Your task to perform on an android device: turn on translation in the chrome app Image 0: 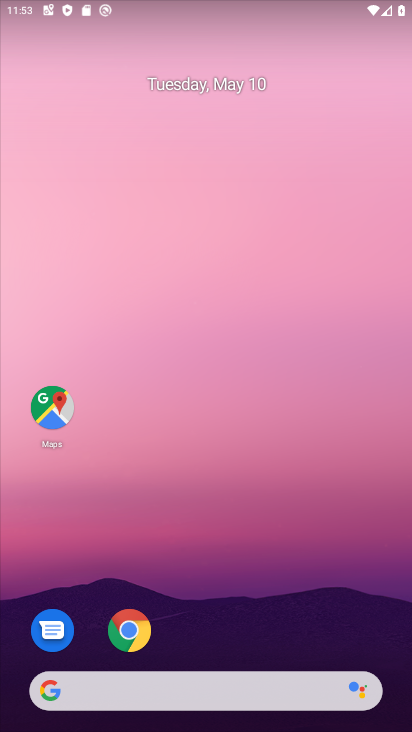
Step 0: click (127, 632)
Your task to perform on an android device: turn on translation in the chrome app Image 1: 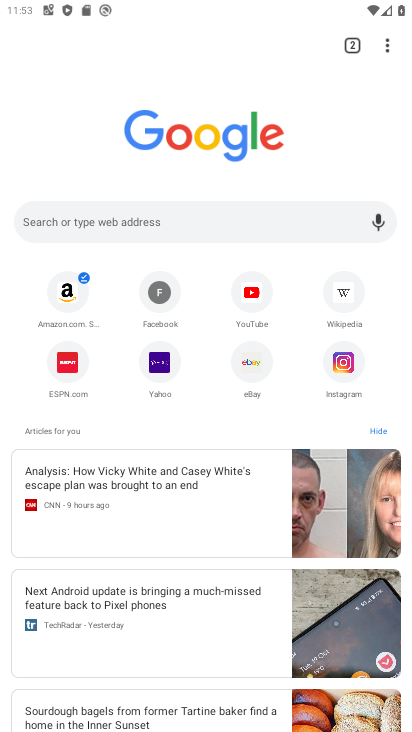
Step 1: drag from (388, 38) to (220, 394)
Your task to perform on an android device: turn on translation in the chrome app Image 2: 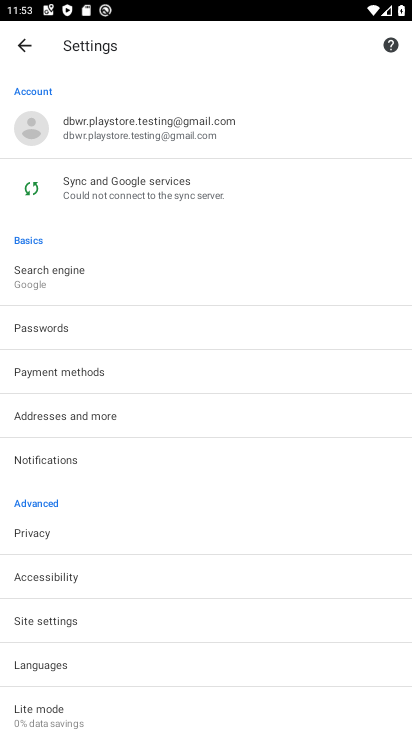
Step 2: drag from (267, 656) to (258, 133)
Your task to perform on an android device: turn on translation in the chrome app Image 3: 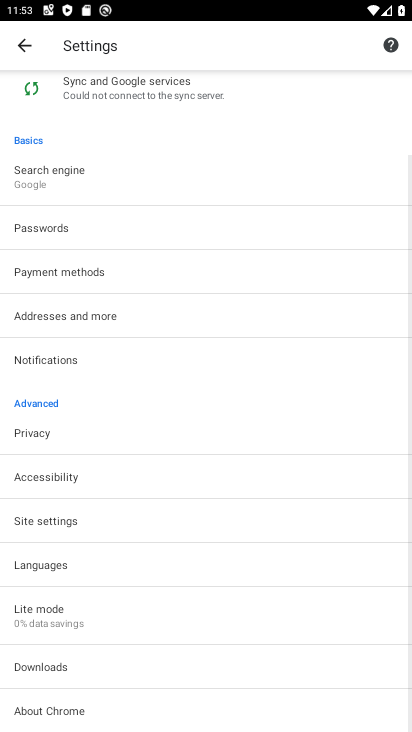
Step 3: click (73, 566)
Your task to perform on an android device: turn on translation in the chrome app Image 4: 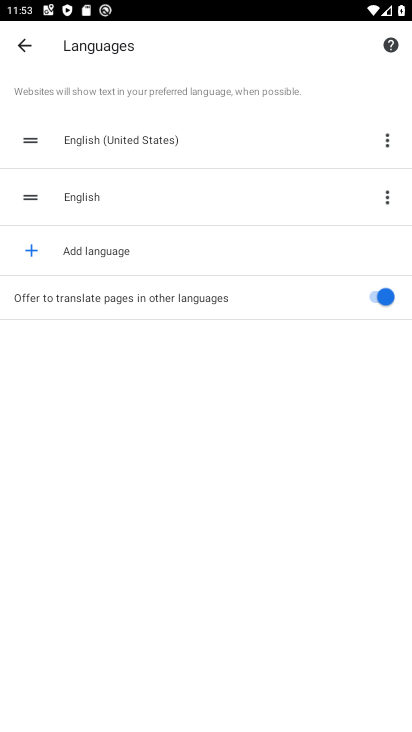
Step 4: task complete